Your task to perform on an android device: open app "Adobe Acrobat Reader" (install if not already installed) and go to login screen Image 0: 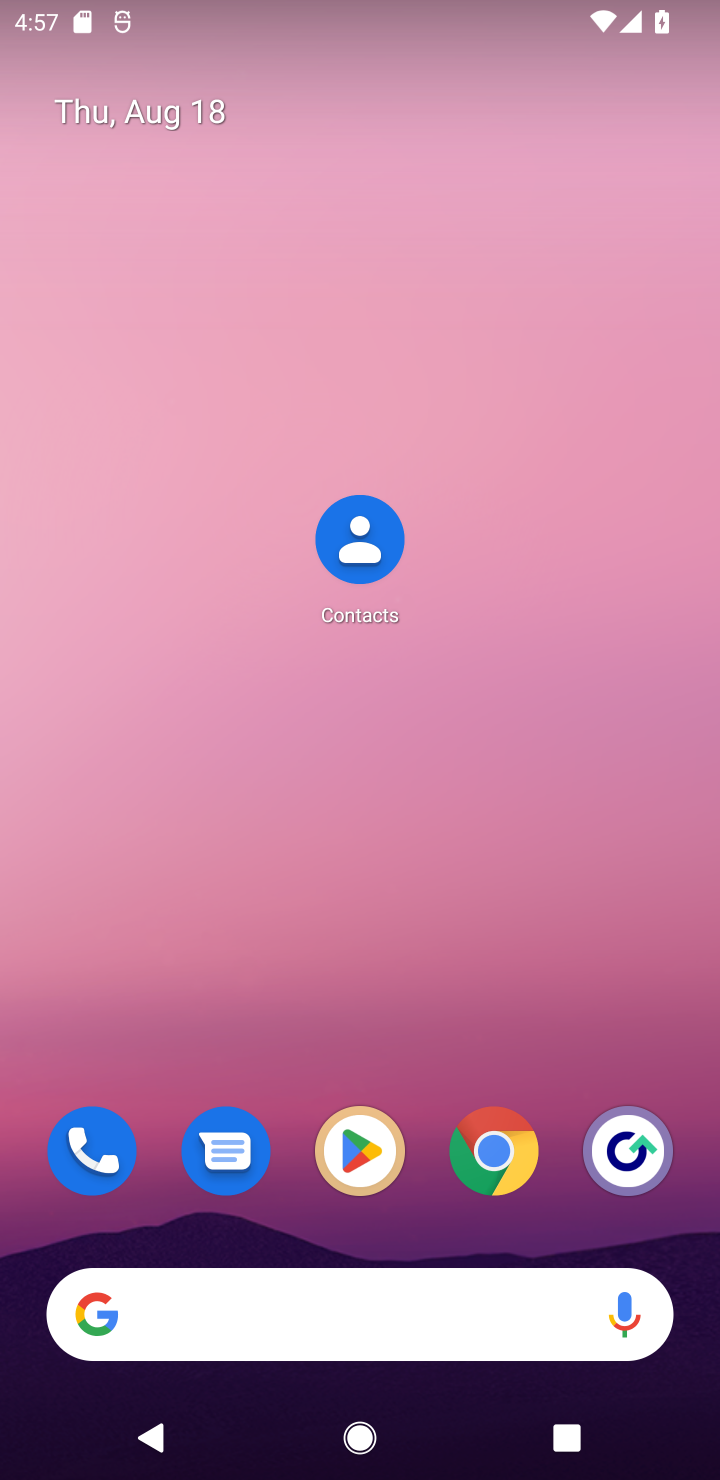
Step 0: click (326, 1180)
Your task to perform on an android device: open app "Adobe Acrobat Reader" (install if not already installed) and go to login screen Image 1: 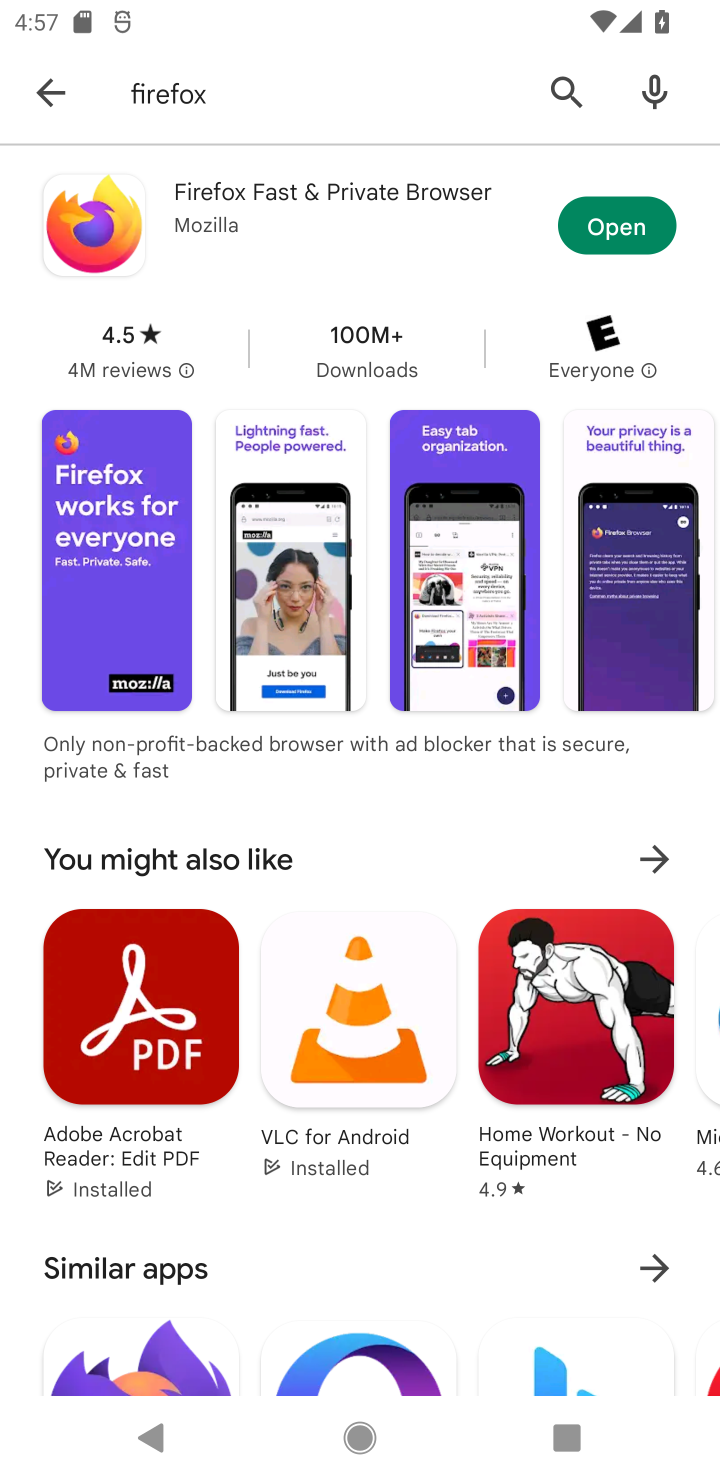
Step 1: click (582, 107)
Your task to perform on an android device: open app "Adobe Acrobat Reader" (install if not already installed) and go to login screen Image 2: 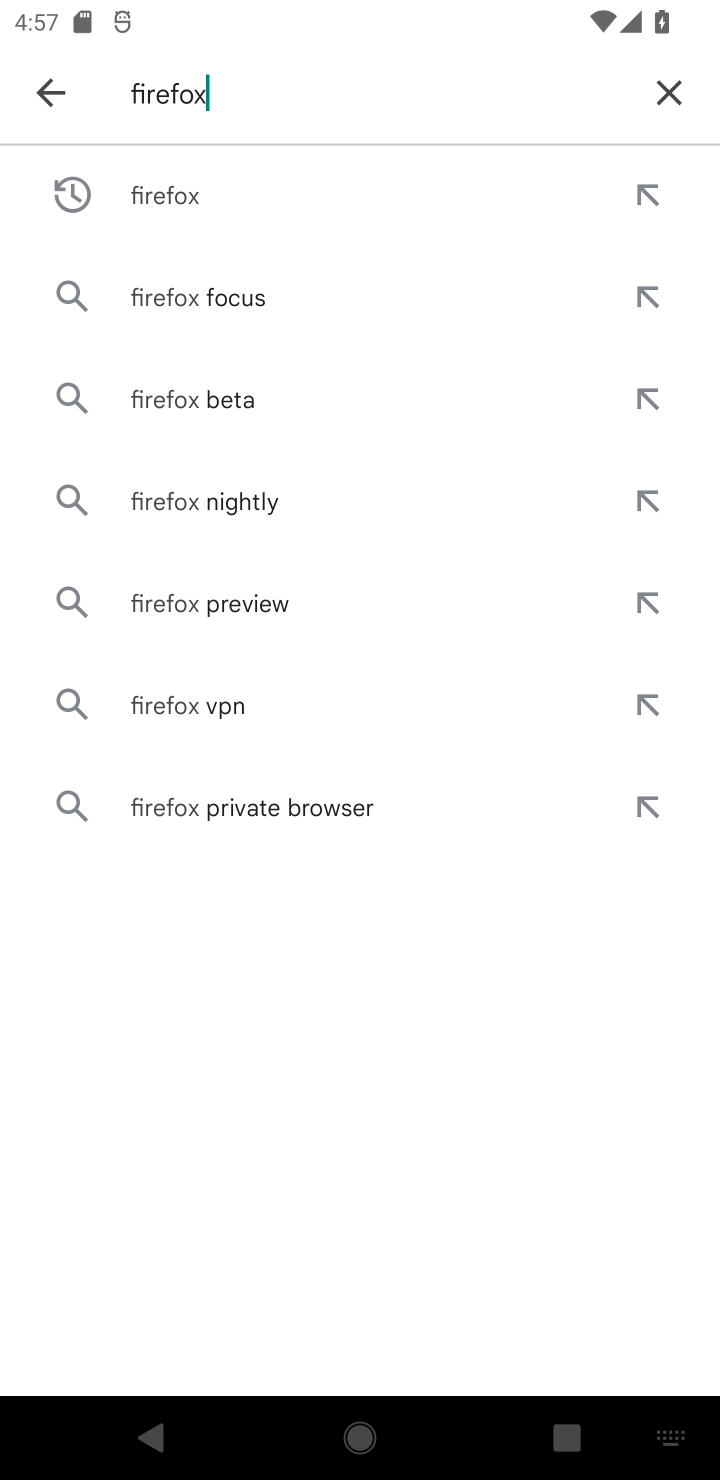
Step 2: click (673, 107)
Your task to perform on an android device: open app "Adobe Acrobat Reader" (install if not already installed) and go to login screen Image 3: 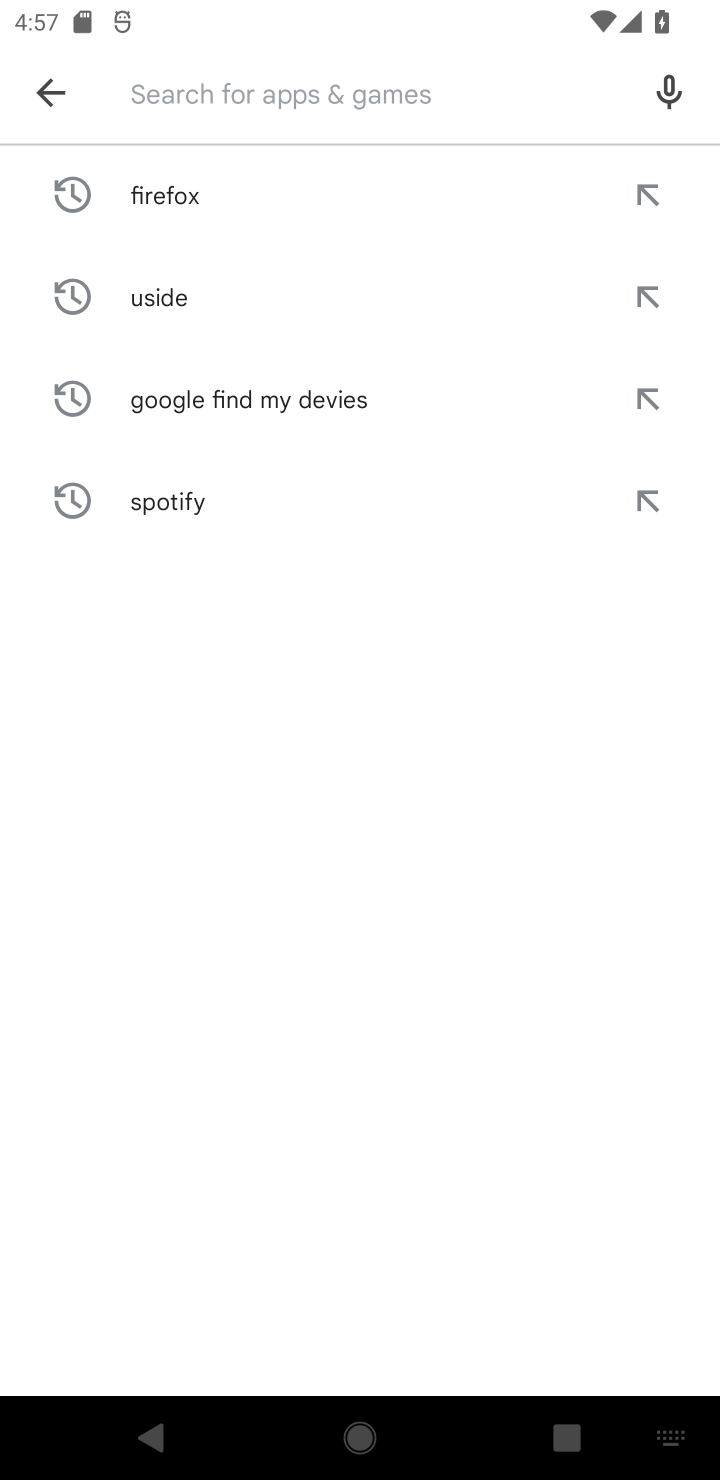
Step 3: type "adobe  reader"
Your task to perform on an android device: open app "Adobe Acrobat Reader" (install if not already installed) and go to login screen Image 4: 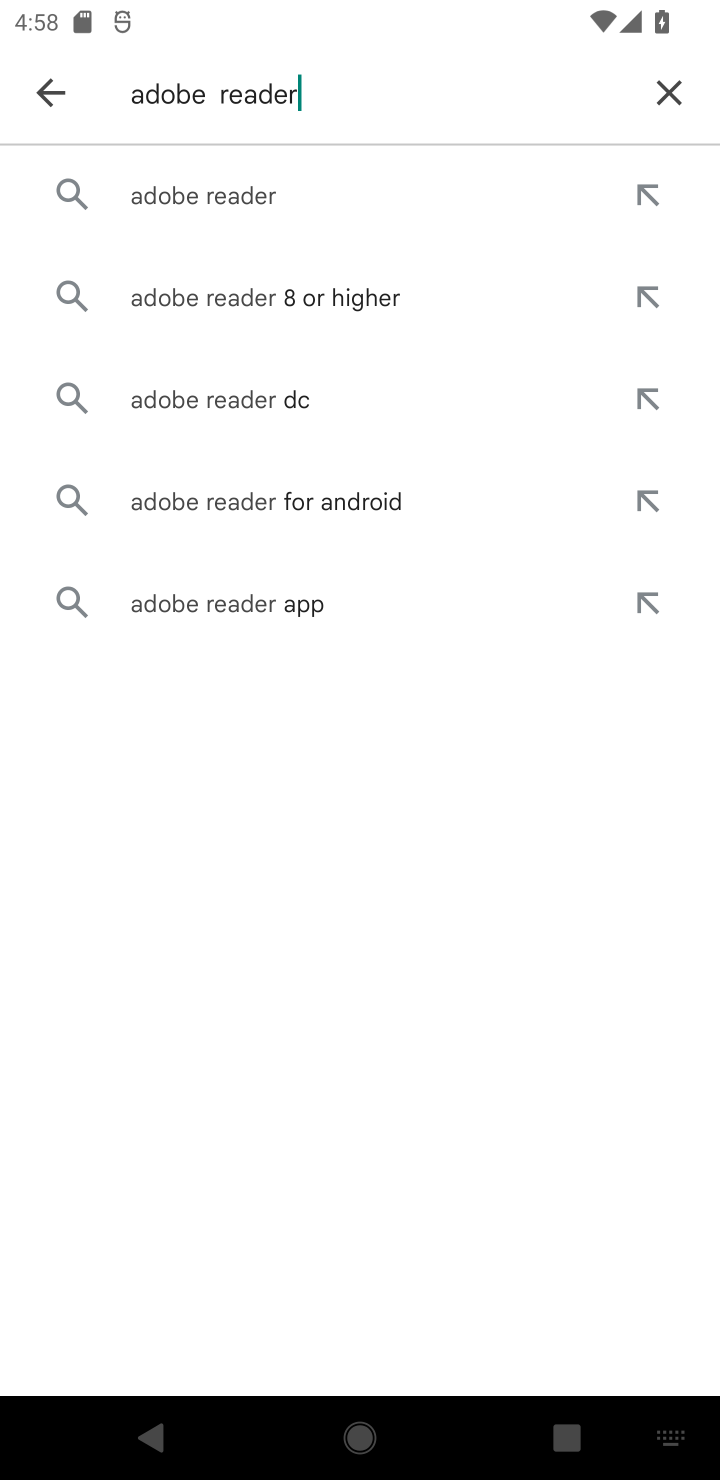
Step 4: click (389, 206)
Your task to perform on an android device: open app "Adobe Acrobat Reader" (install if not already installed) and go to login screen Image 5: 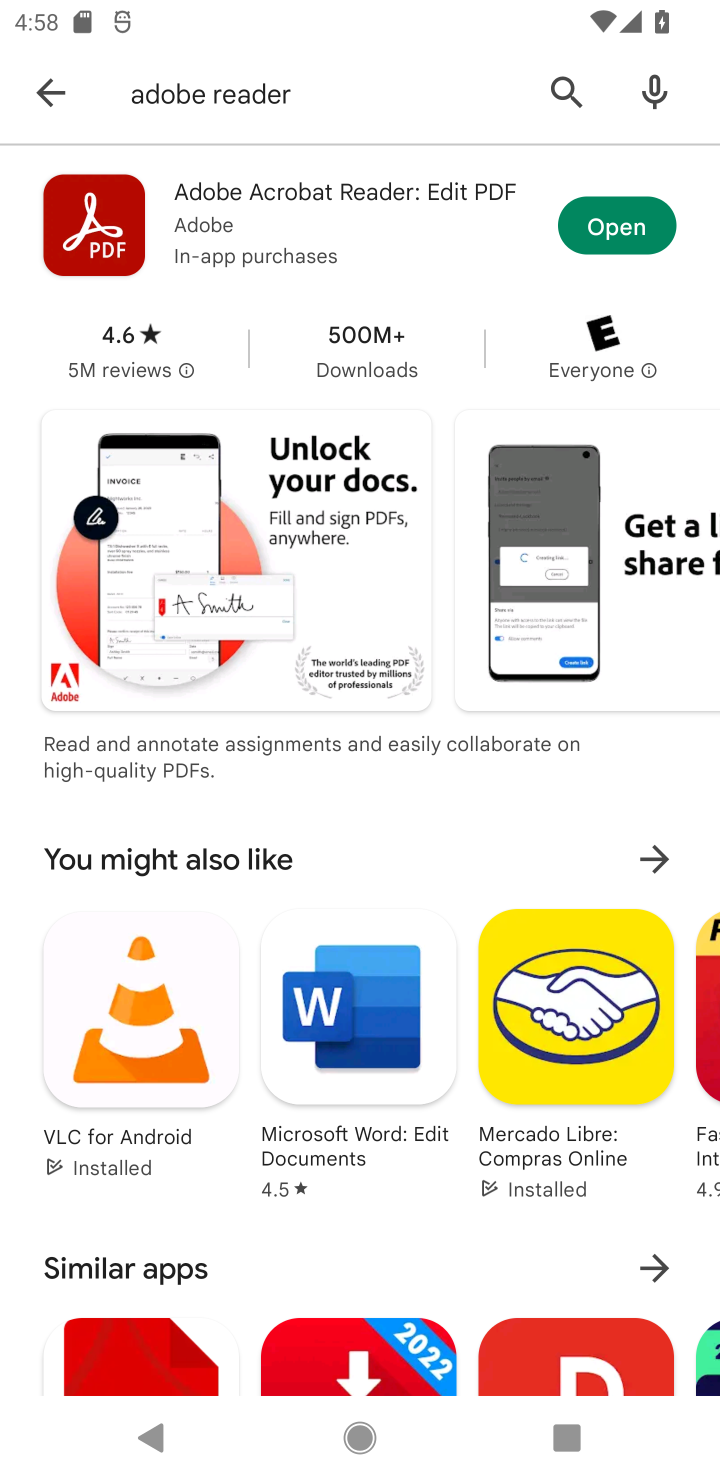
Step 5: click (608, 243)
Your task to perform on an android device: open app "Adobe Acrobat Reader" (install if not already installed) and go to login screen Image 6: 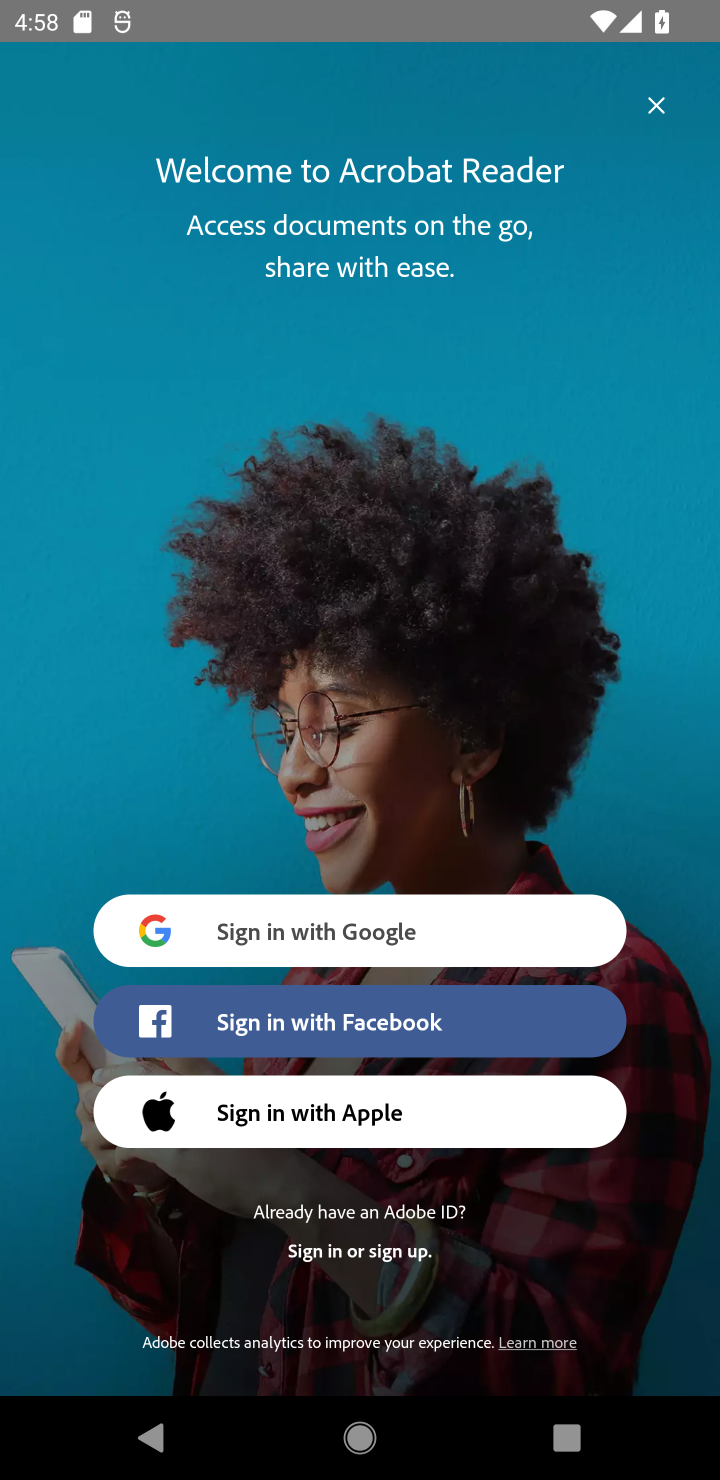
Step 6: task complete